Your task to perform on an android device: Add "jbl flip 4" to the cart on ebay, then select checkout. Image 0: 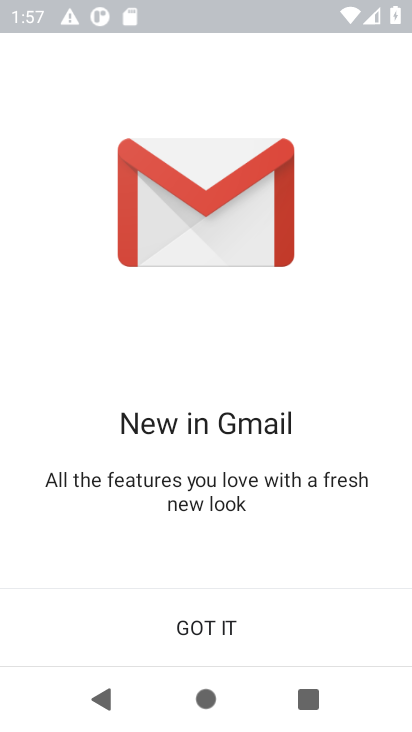
Step 0: press home button
Your task to perform on an android device: Add "jbl flip 4" to the cart on ebay, then select checkout. Image 1: 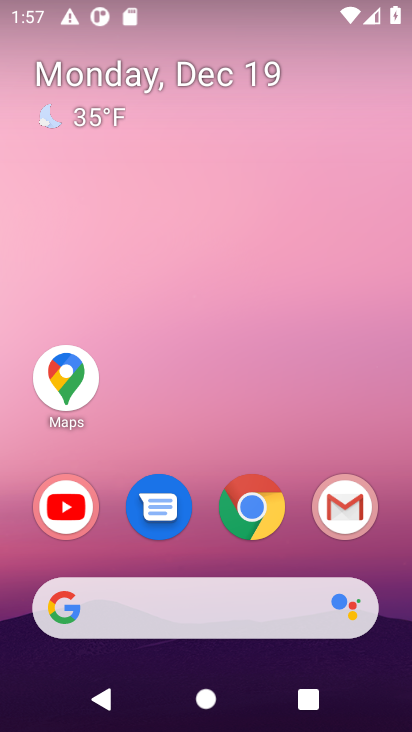
Step 1: click (250, 509)
Your task to perform on an android device: Add "jbl flip 4" to the cart on ebay, then select checkout. Image 2: 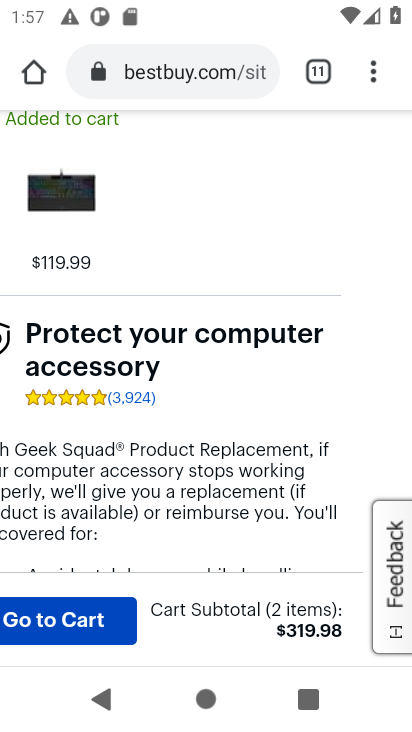
Step 2: click (201, 66)
Your task to perform on an android device: Add "jbl flip 4" to the cart on ebay, then select checkout. Image 3: 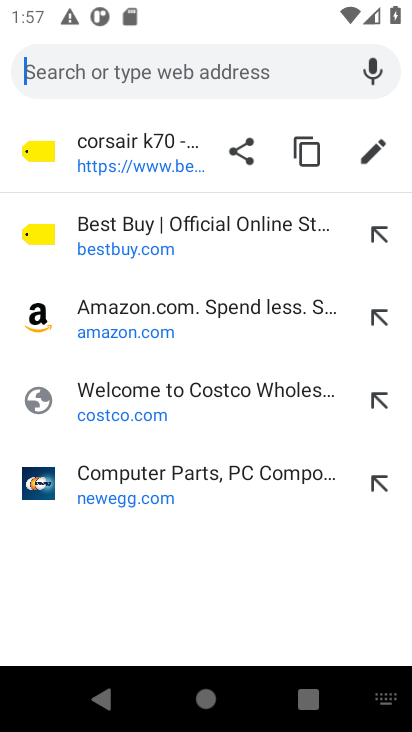
Step 3: type "ebay.com"
Your task to perform on an android device: Add "jbl flip 4" to the cart on ebay, then select checkout. Image 4: 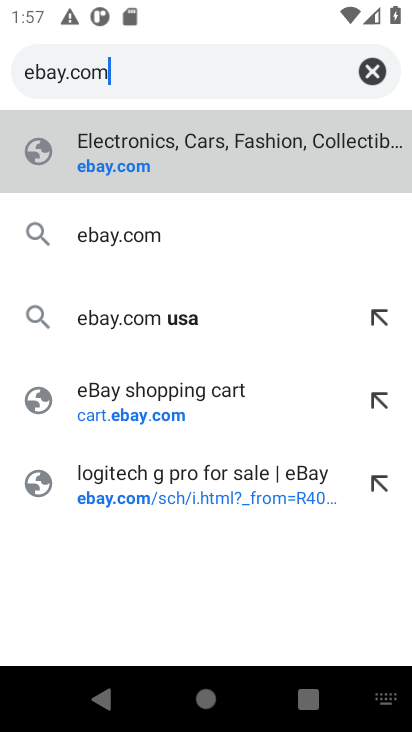
Step 4: click (117, 173)
Your task to perform on an android device: Add "jbl flip 4" to the cart on ebay, then select checkout. Image 5: 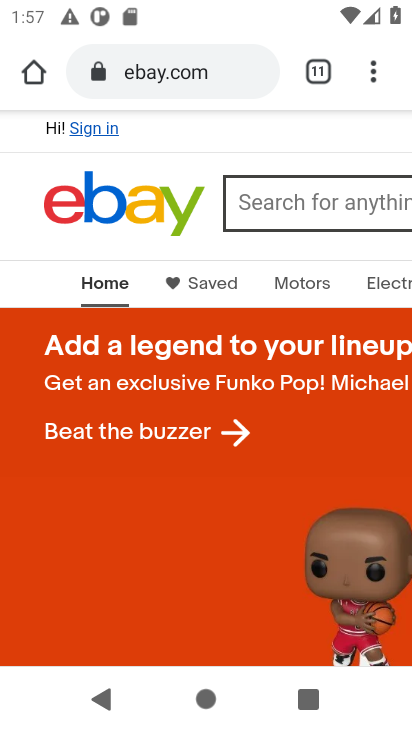
Step 5: click (262, 205)
Your task to perform on an android device: Add "jbl flip 4" to the cart on ebay, then select checkout. Image 6: 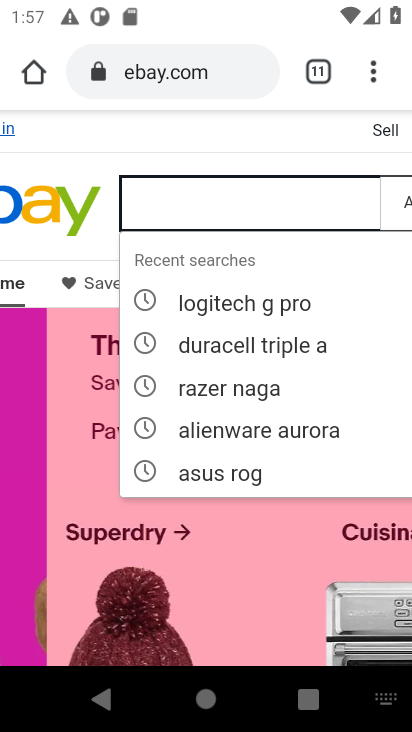
Step 6: type "jbl flip 4"
Your task to perform on an android device: Add "jbl flip 4" to the cart on ebay, then select checkout. Image 7: 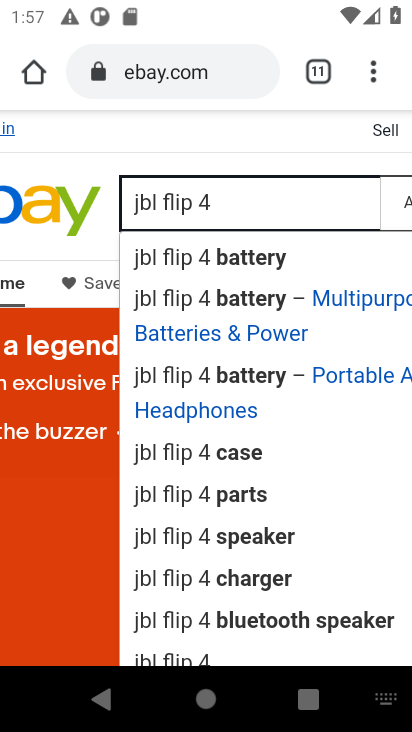
Step 7: drag from (328, 167) to (6, 196)
Your task to perform on an android device: Add "jbl flip 4" to the cart on ebay, then select checkout. Image 8: 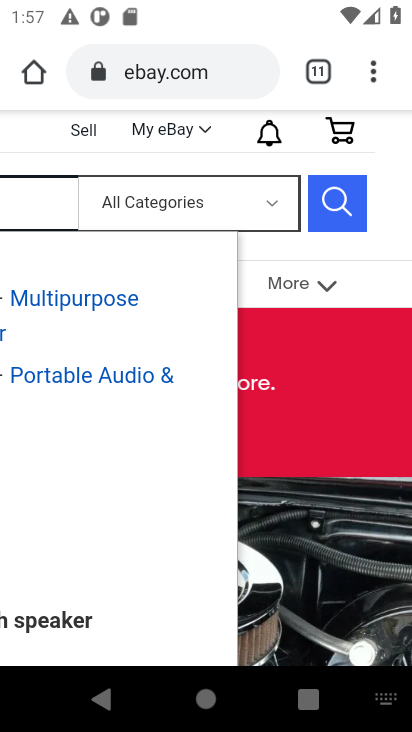
Step 8: click (338, 213)
Your task to perform on an android device: Add "jbl flip 4" to the cart on ebay, then select checkout. Image 9: 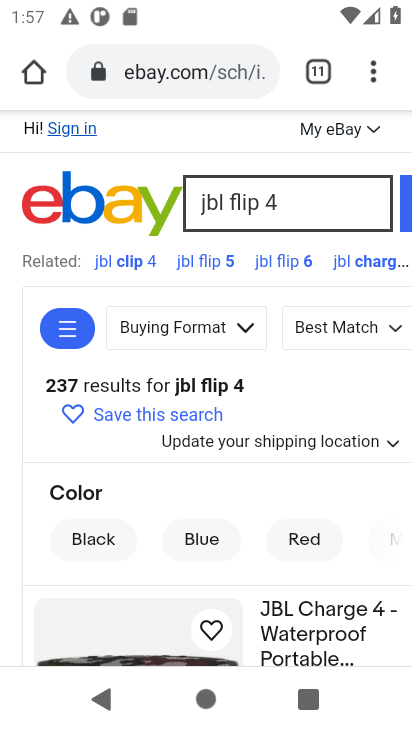
Step 9: drag from (126, 563) to (122, 220)
Your task to perform on an android device: Add "jbl flip 4" to the cart on ebay, then select checkout. Image 10: 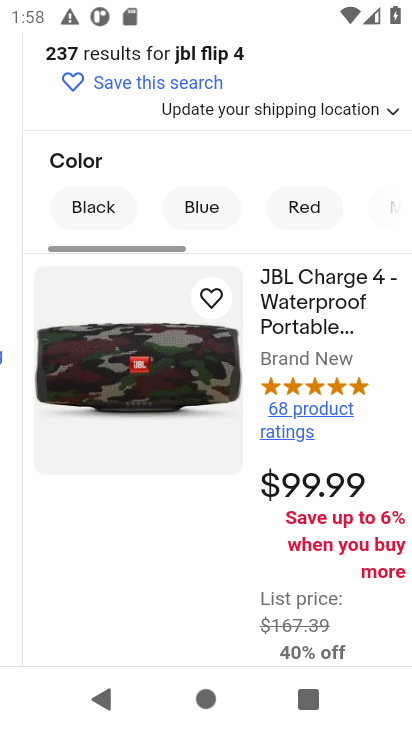
Step 10: drag from (110, 492) to (122, 162)
Your task to perform on an android device: Add "jbl flip 4" to the cart on ebay, then select checkout. Image 11: 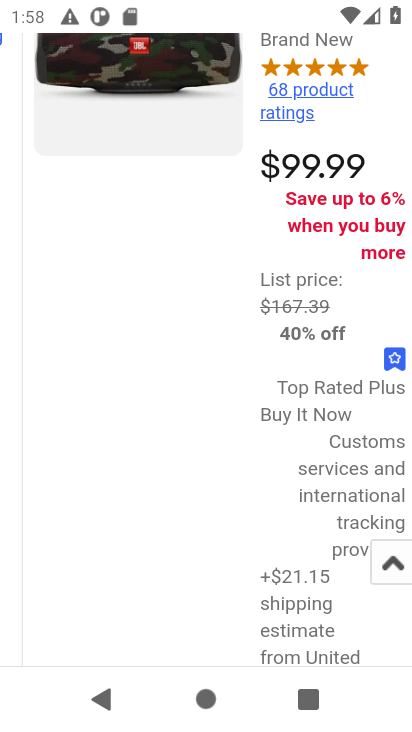
Step 11: drag from (130, 481) to (130, 187)
Your task to perform on an android device: Add "jbl flip 4" to the cart on ebay, then select checkout. Image 12: 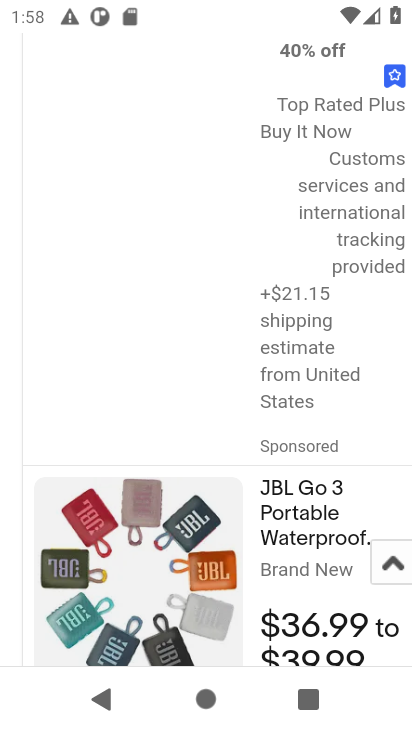
Step 12: drag from (122, 490) to (120, 146)
Your task to perform on an android device: Add "jbl flip 4" to the cart on ebay, then select checkout. Image 13: 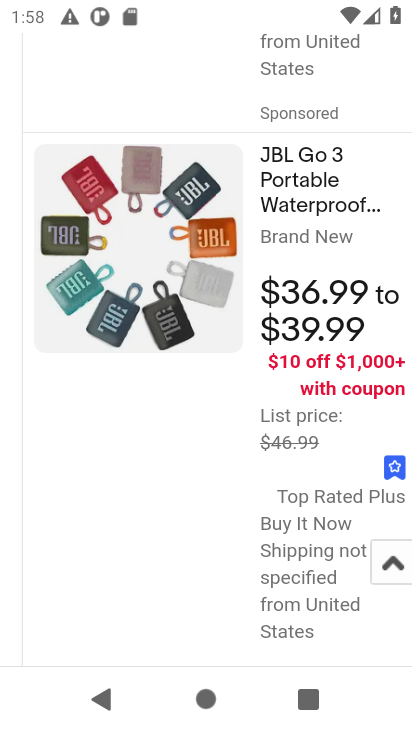
Step 13: drag from (127, 475) to (125, 183)
Your task to perform on an android device: Add "jbl flip 4" to the cart on ebay, then select checkout. Image 14: 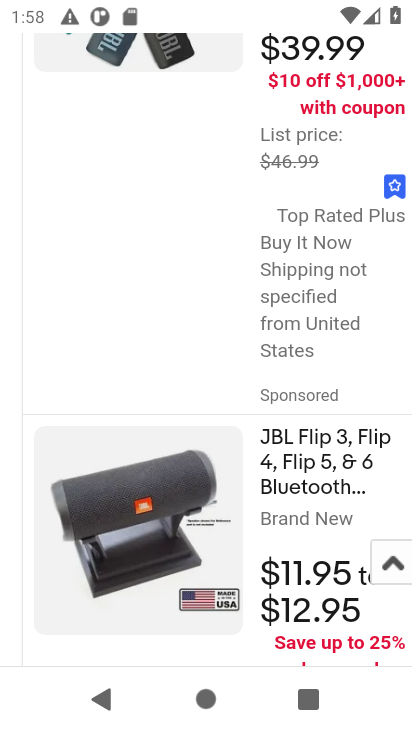
Step 14: drag from (123, 486) to (117, 266)
Your task to perform on an android device: Add "jbl flip 4" to the cart on ebay, then select checkout. Image 15: 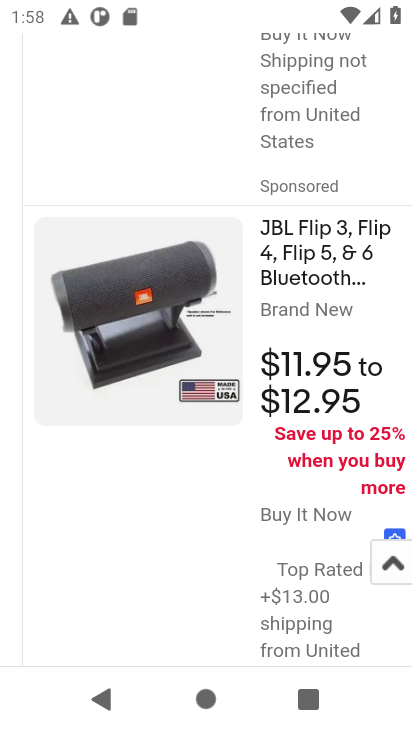
Step 15: click (297, 264)
Your task to perform on an android device: Add "jbl flip 4" to the cart on ebay, then select checkout. Image 16: 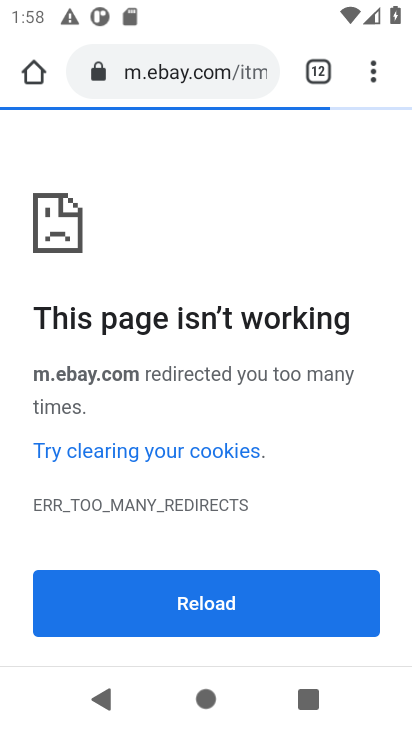
Step 16: task complete